Your task to perform on an android device: search for starred emails in the gmail app Image 0: 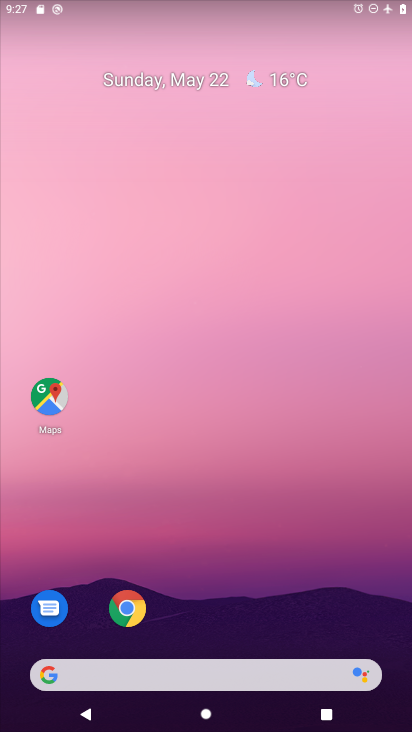
Step 0: drag from (240, 697) to (241, 161)
Your task to perform on an android device: search for starred emails in the gmail app Image 1: 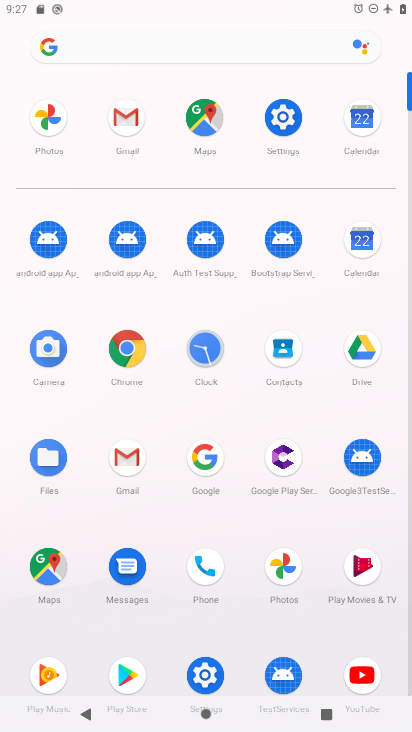
Step 1: click (127, 460)
Your task to perform on an android device: search for starred emails in the gmail app Image 2: 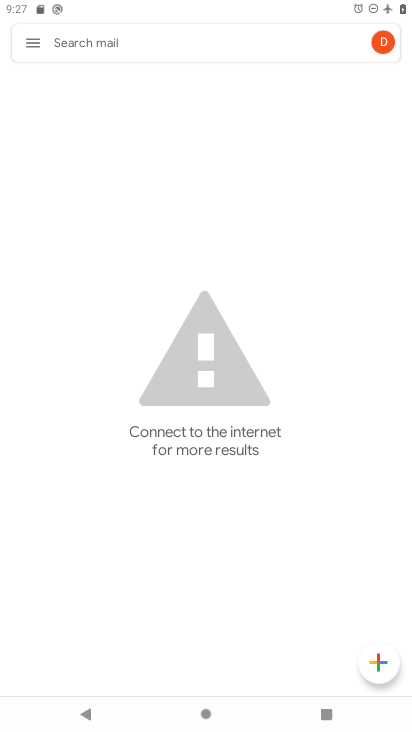
Step 2: click (34, 37)
Your task to perform on an android device: search for starred emails in the gmail app Image 3: 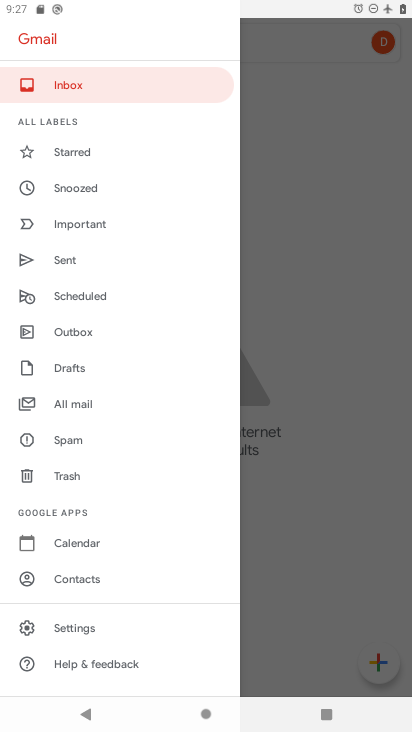
Step 3: click (66, 150)
Your task to perform on an android device: search for starred emails in the gmail app Image 4: 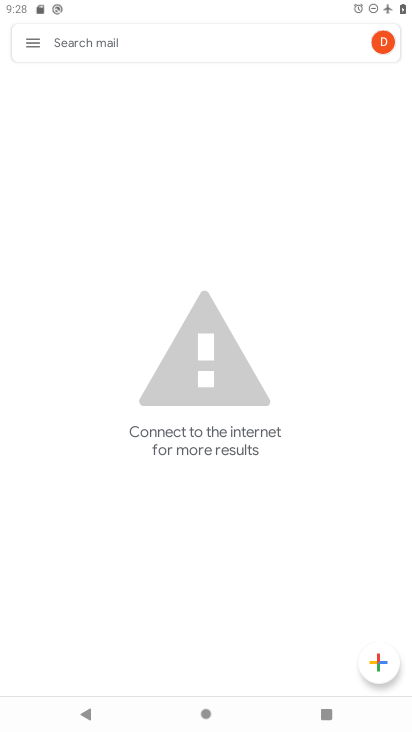
Step 4: task complete